Your task to perform on an android device: Search for Mexican restaurants on Maps Image 0: 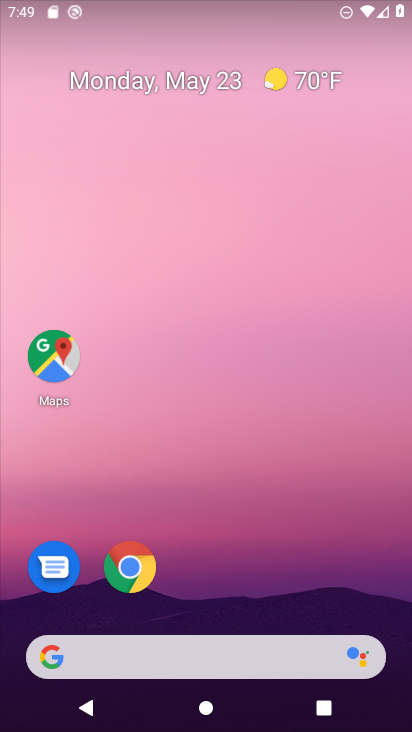
Step 0: drag from (165, 590) to (286, 71)
Your task to perform on an android device: Search for Mexican restaurants on Maps Image 1: 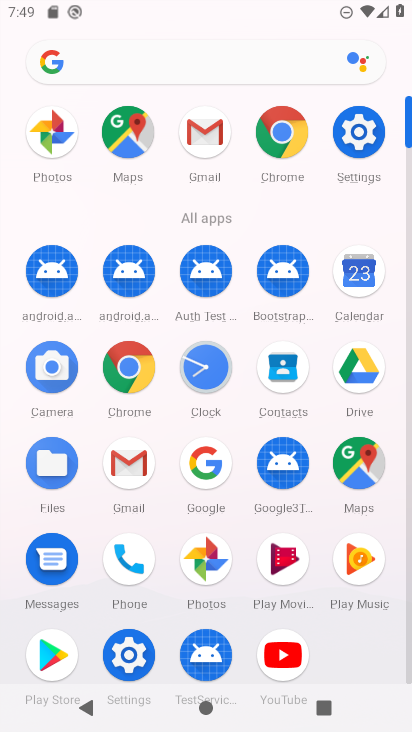
Step 1: click (354, 470)
Your task to perform on an android device: Search for Mexican restaurants on Maps Image 2: 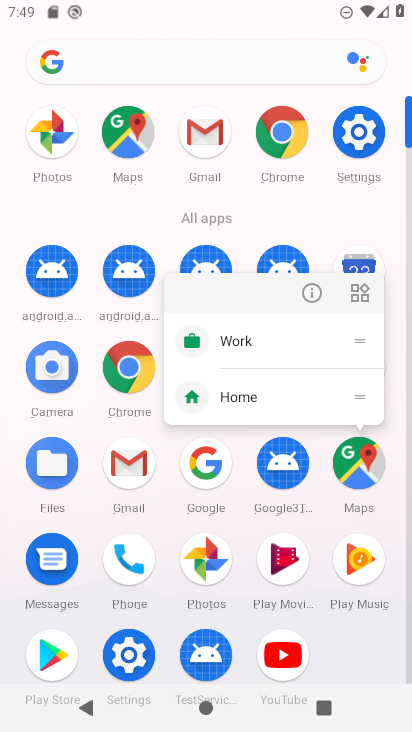
Step 2: click (311, 297)
Your task to perform on an android device: Search for Mexican restaurants on Maps Image 3: 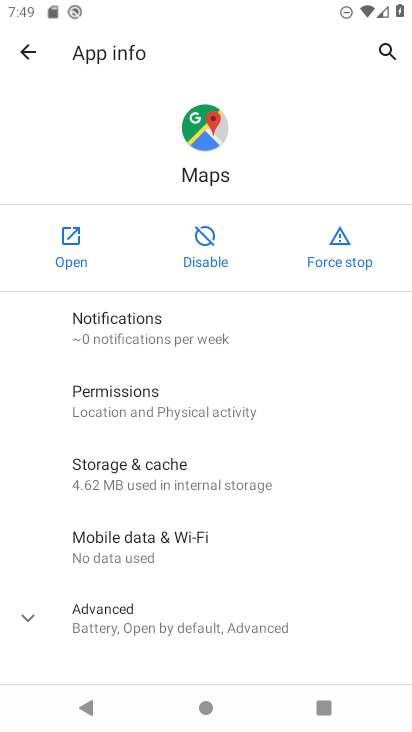
Step 3: click (47, 278)
Your task to perform on an android device: Search for Mexican restaurants on Maps Image 4: 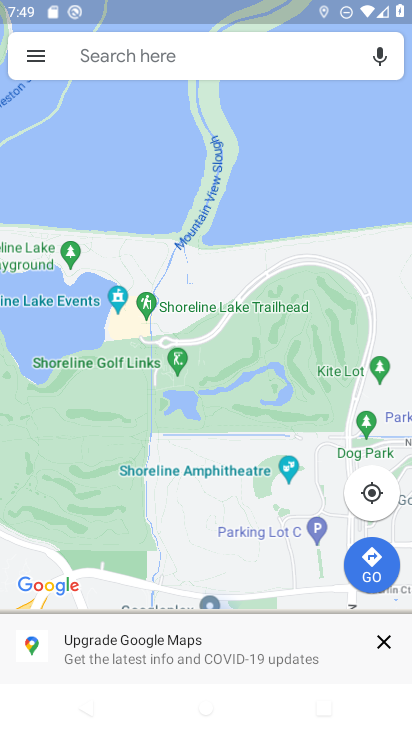
Step 4: click (168, 63)
Your task to perform on an android device: Search for Mexican restaurants on Maps Image 5: 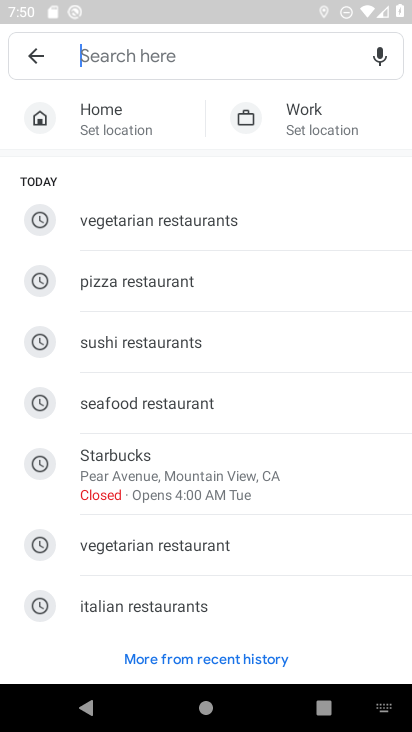
Step 5: type "mexican restaurants"
Your task to perform on an android device: Search for Mexican restaurants on Maps Image 6: 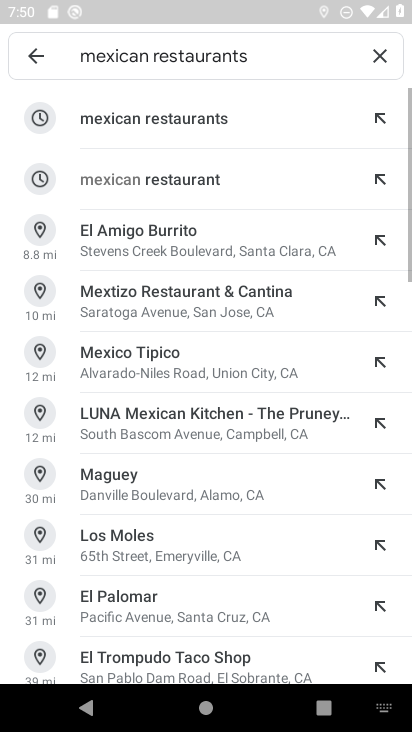
Step 6: click (170, 120)
Your task to perform on an android device: Search for Mexican restaurants on Maps Image 7: 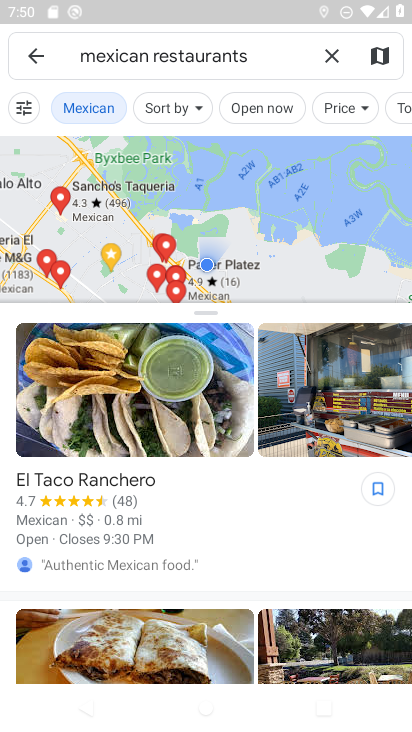
Step 7: task complete